Your task to perform on an android device: open chrome privacy settings Image 0: 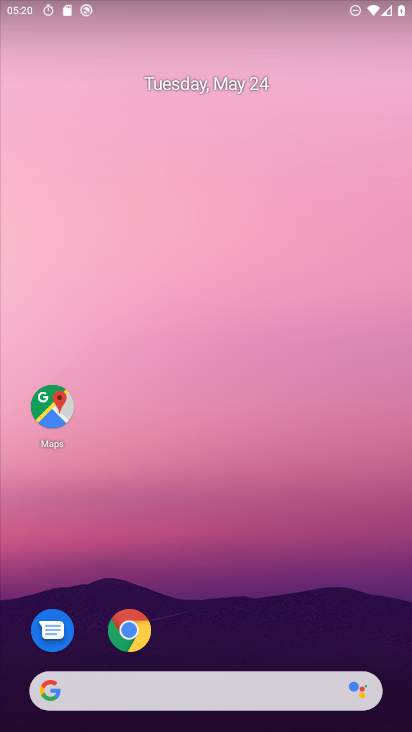
Step 0: click (134, 627)
Your task to perform on an android device: open chrome privacy settings Image 1: 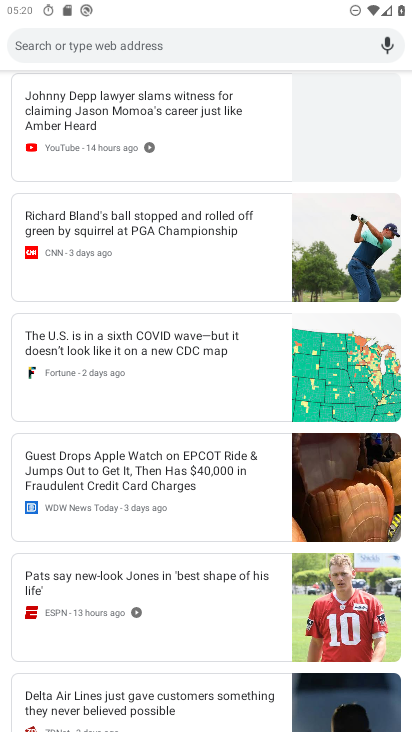
Step 1: drag from (279, 108) to (231, 661)
Your task to perform on an android device: open chrome privacy settings Image 2: 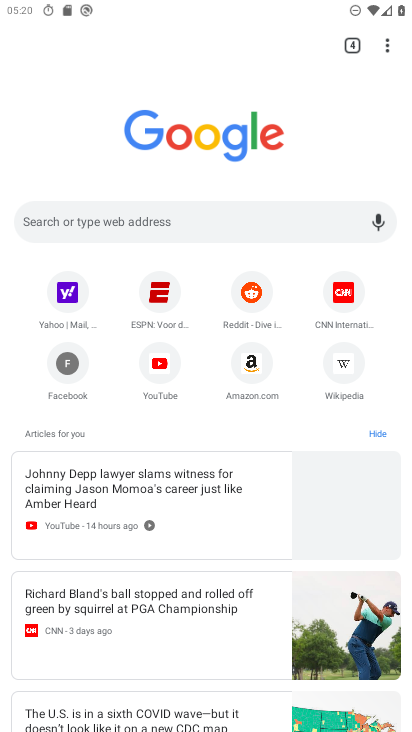
Step 2: click (396, 45)
Your task to perform on an android device: open chrome privacy settings Image 3: 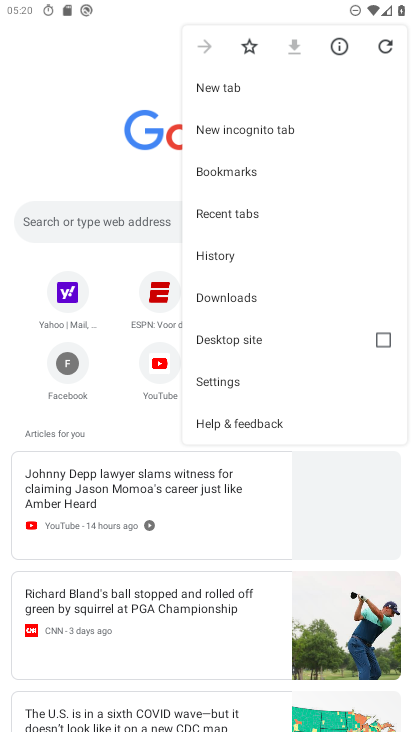
Step 3: click (233, 379)
Your task to perform on an android device: open chrome privacy settings Image 4: 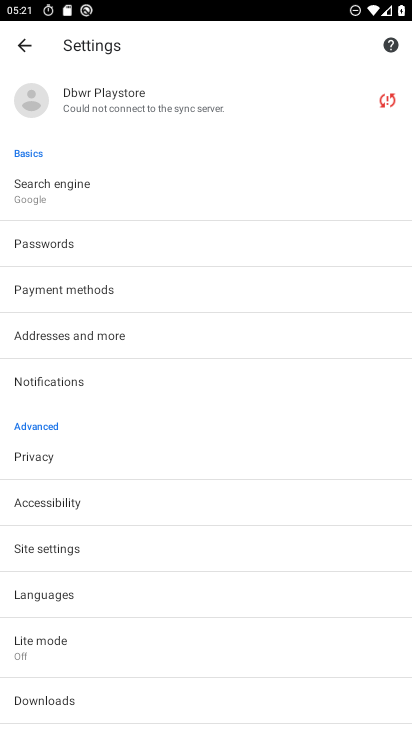
Step 4: click (74, 462)
Your task to perform on an android device: open chrome privacy settings Image 5: 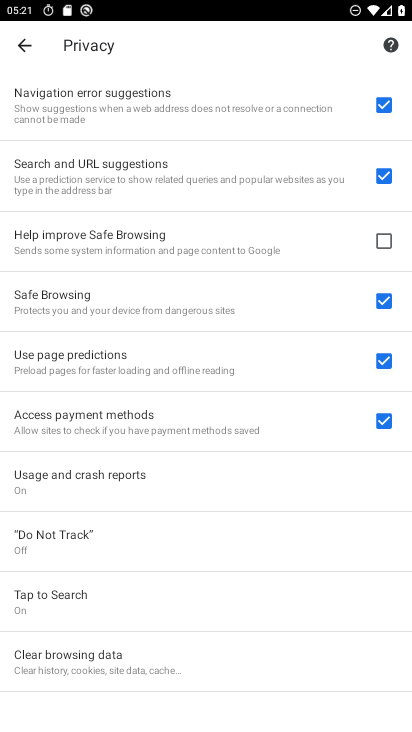
Step 5: task complete